Your task to perform on an android device: Do I have any events this weekend? Image 0: 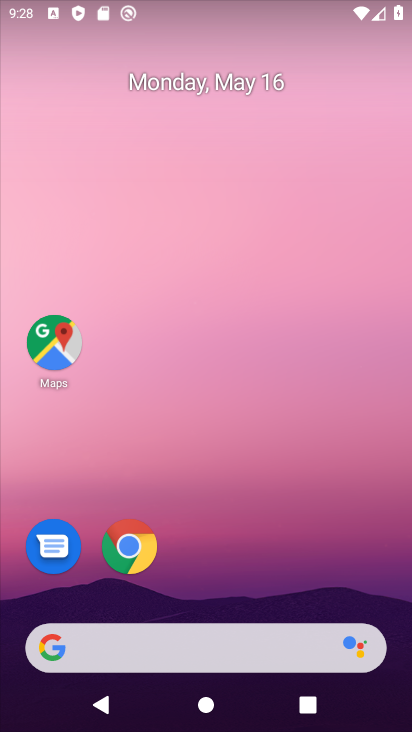
Step 0: click (262, 96)
Your task to perform on an android device: Do I have any events this weekend? Image 1: 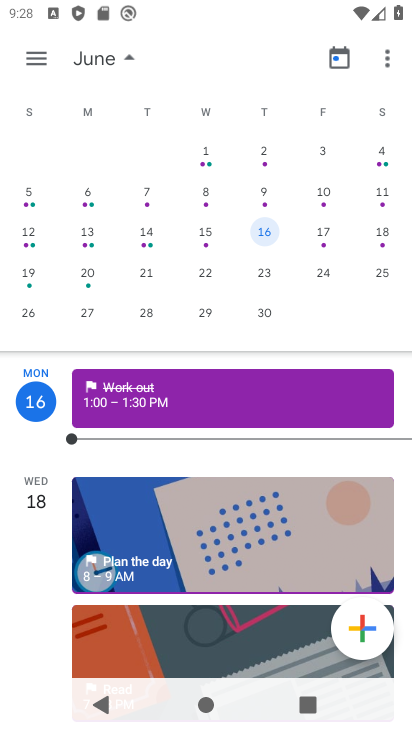
Step 1: click (107, 62)
Your task to perform on an android device: Do I have any events this weekend? Image 2: 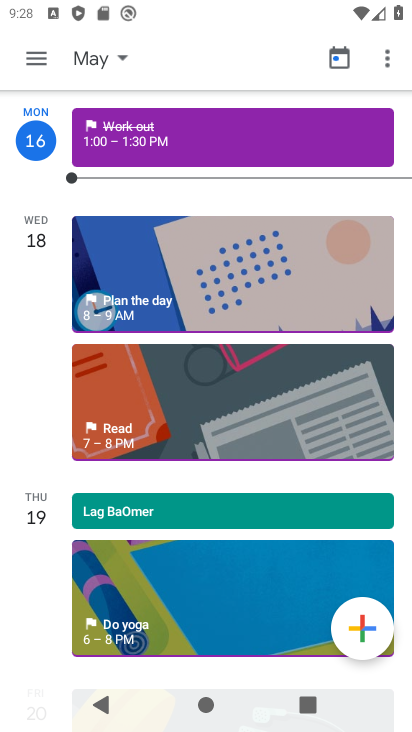
Step 2: click (107, 62)
Your task to perform on an android device: Do I have any events this weekend? Image 3: 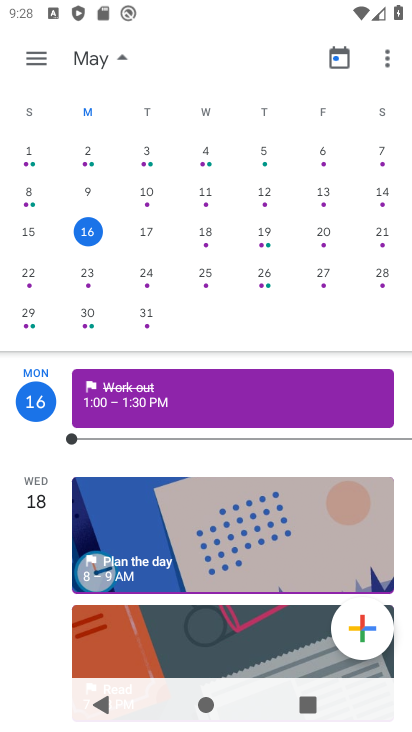
Step 3: click (381, 246)
Your task to perform on an android device: Do I have any events this weekend? Image 4: 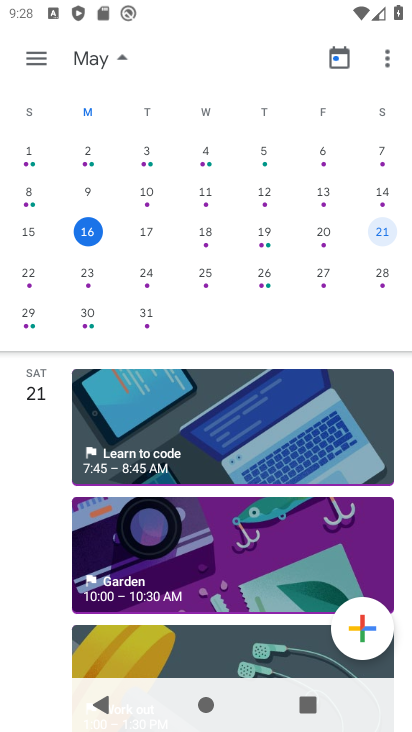
Step 4: task complete